Your task to perform on an android device: choose inbox layout in the gmail app Image 0: 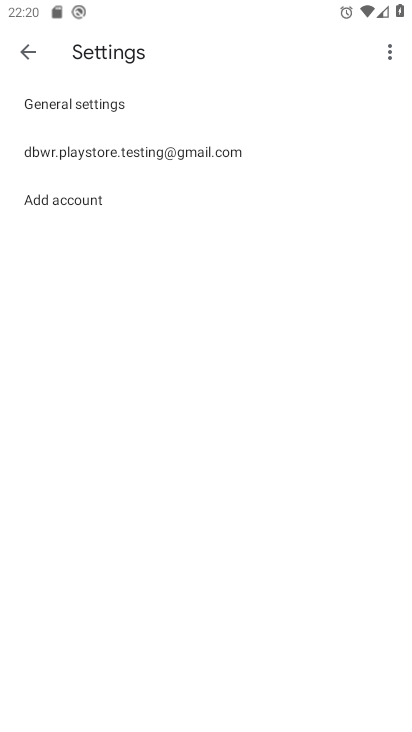
Step 0: press home button
Your task to perform on an android device: choose inbox layout in the gmail app Image 1: 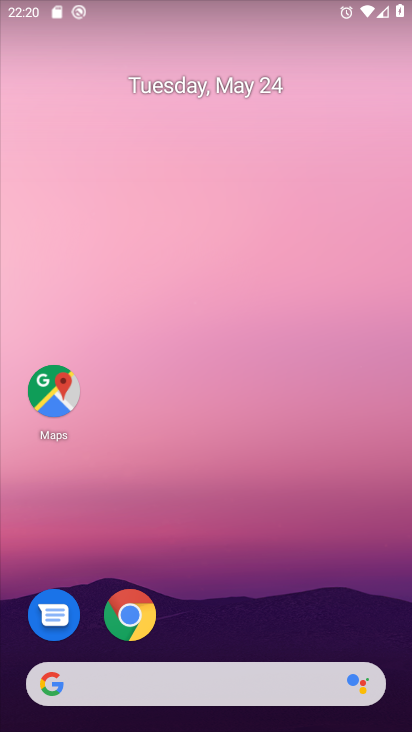
Step 1: click (219, 597)
Your task to perform on an android device: choose inbox layout in the gmail app Image 2: 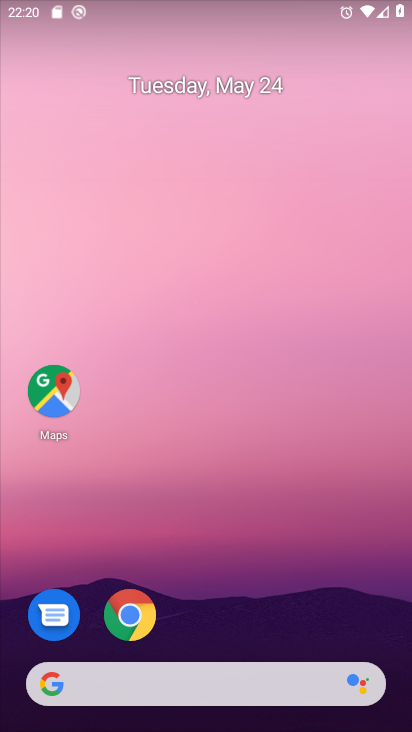
Step 2: drag from (218, 570) to (257, 247)
Your task to perform on an android device: choose inbox layout in the gmail app Image 3: 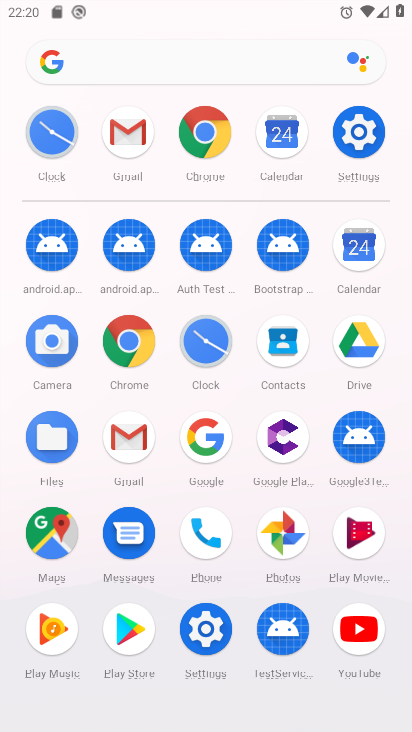
Step 3: click (121, 432)
Your task to perform on an android device: choose inbox layout in the gmail app Image 4: 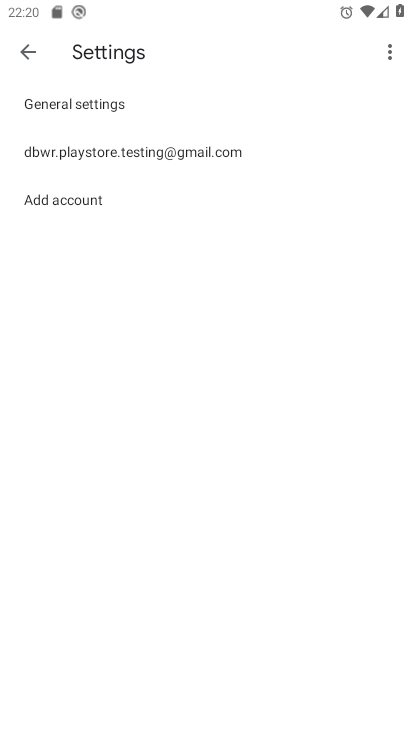
Step 4: click (31, 44)
Your task to perform on an android device: choose inbox layout in the gmail app Image 5: 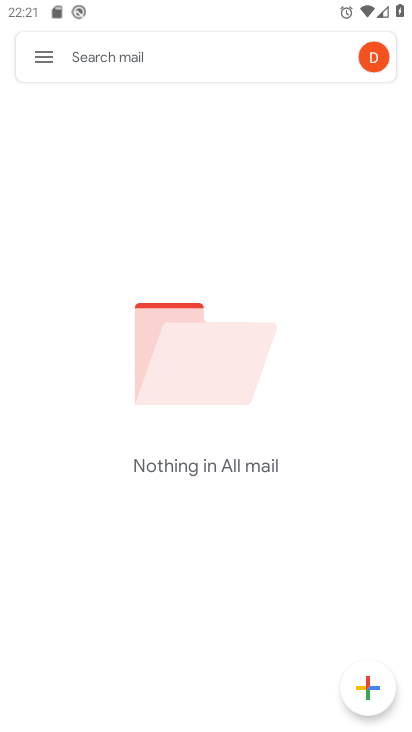
Step 5: click (40, 58)
Your task to perform on an android device: choose inbox layout in the gmail app Image 6: 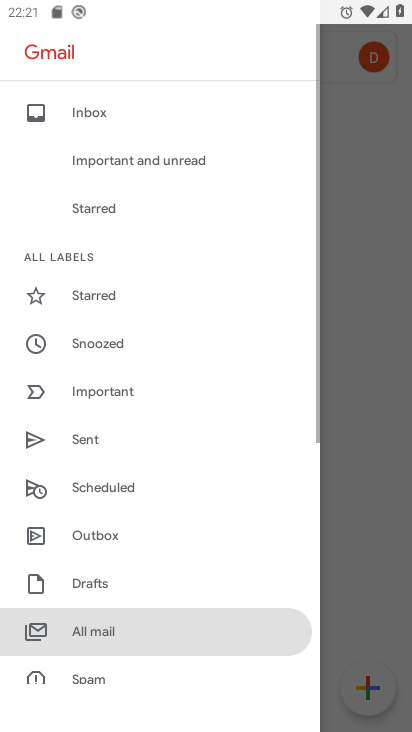
Step 6: click (140, 602)
Your task to perform on an android device: choose inbox layout in the gmail app Image 7: 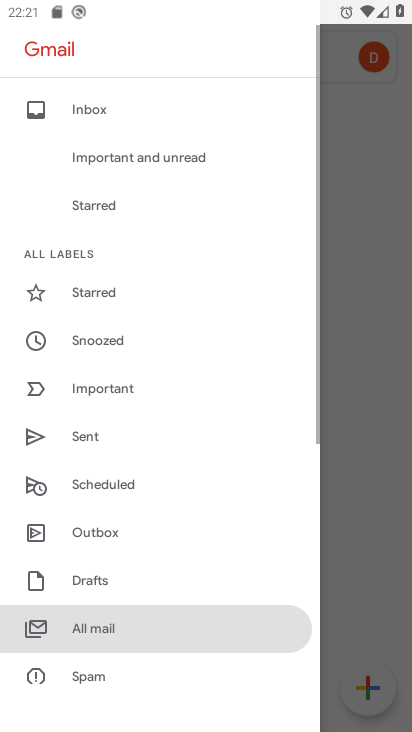
Step 7: drag from (147, 572) to (219, 210)
Your task to perform on an android device: choose inbox layout in the gmail app Image 8: 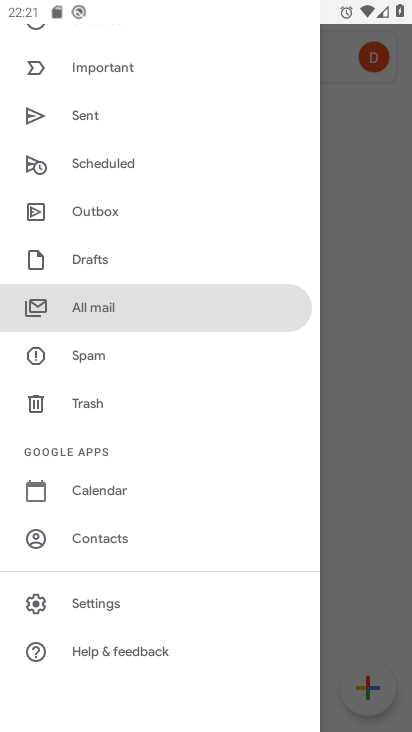
Step 8: click (130, 599)
Your task to perform on an android device: choose inbox layout in the gmail app Image 9: 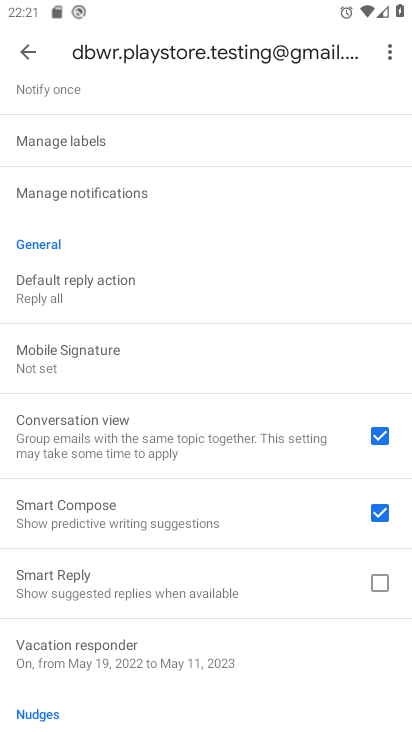
Step 9: drag from (135, 202) to (171, 589)
Your task to perform on an android device: choose inbox layout in the gmail app Image 10: 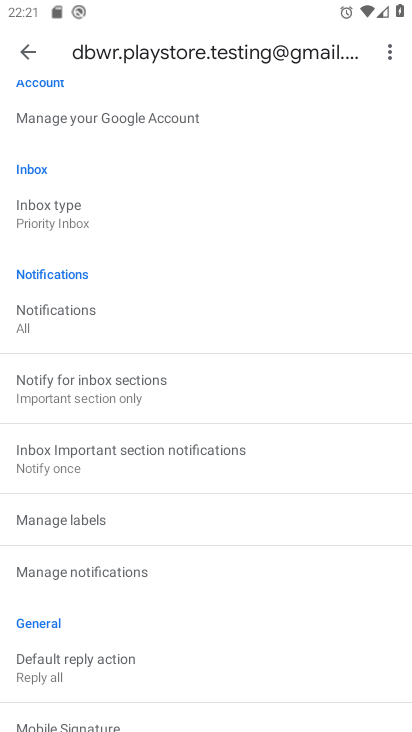
Step 10: click (56, 214)
Your task to perform on an android device: choose inbox layout in the gmail app Image 11: 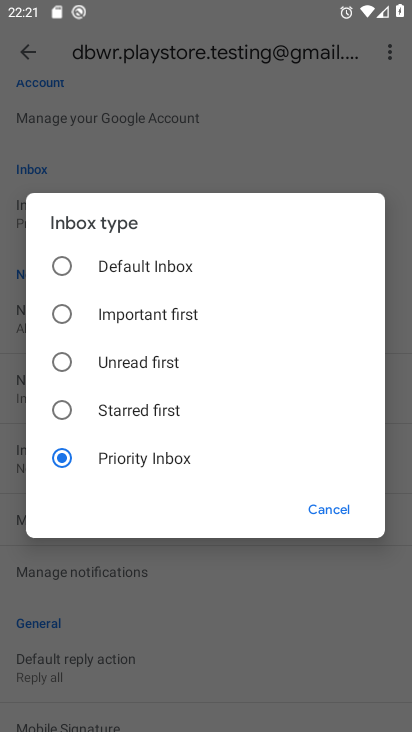
Step 11: click (120, 355)
Your task to perform on an android device: choose inbox layout in the gmail app Image 12: 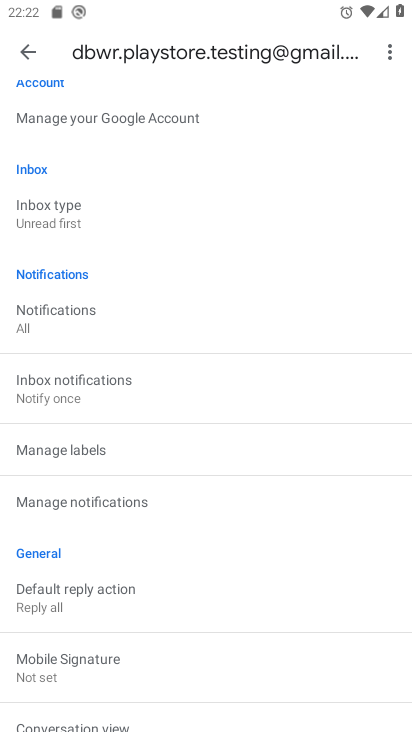
Step 12: task complete